Your task to perform on an android device: Open privacy settings Image 0: 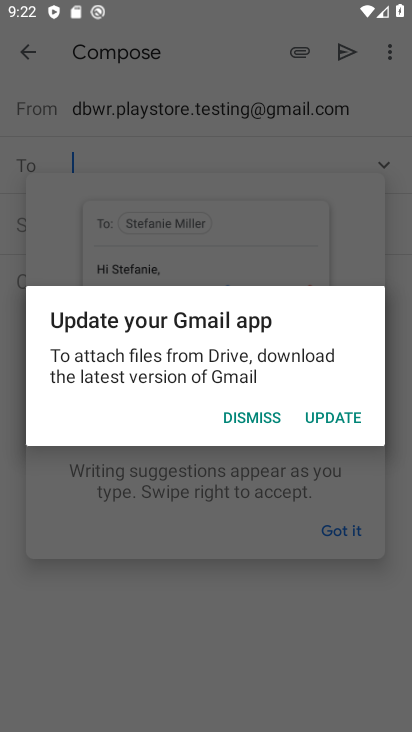
Step 0: press home button
Your task to perform on an android device: Open privacy settings Image 1: 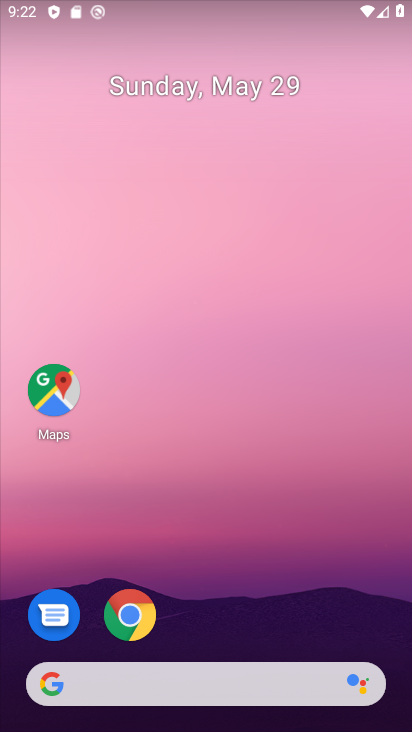
Step 1: drag from (209, 660) to (156, 7)
Your task to perform on an android device: Open privacy settings Image 2: 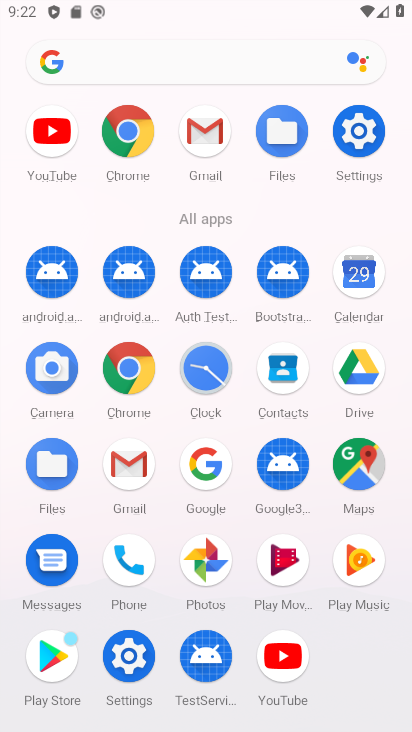
Step 2: click (370, 132)
Your task to perform on an android device: Open privacy settings Image 3: 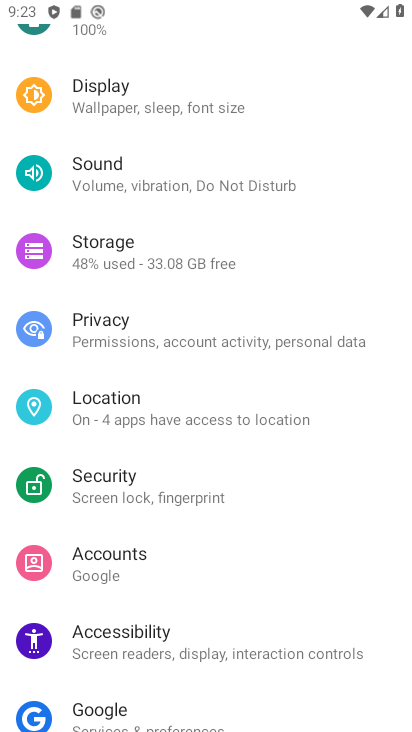
Step 3: click (114, 343)
Your task to perform on an android device: Open privacy settings Image 4: 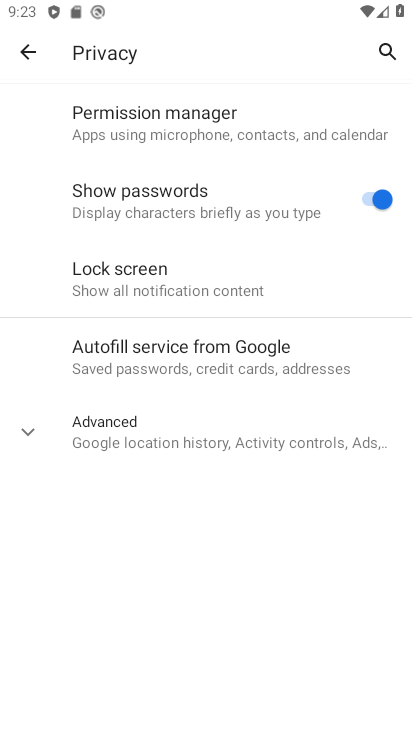
Step 4: click (129, 444)
Your task to perform on an android device: Open privacy settings Image 5: 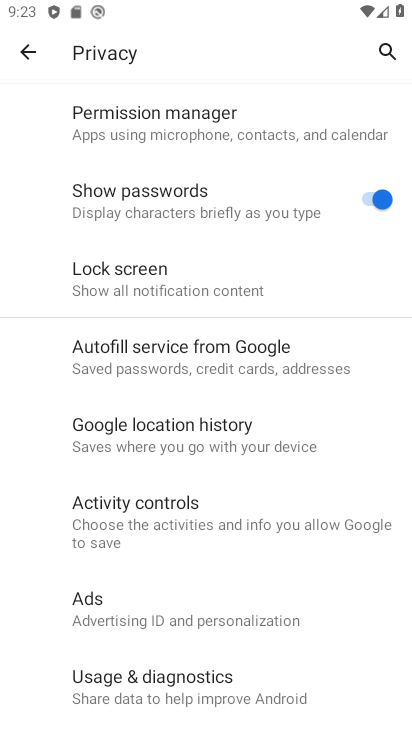
Step 5: task complete